Your task to perform on an android device: What's the weather? Image 0: 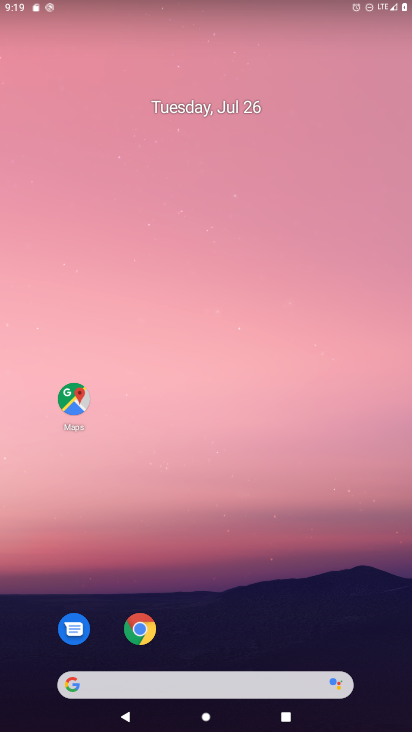
Step 0: drag from (192, 660) to (190, 18)
Your task to perform on an android device: What's the weather? Image 1: 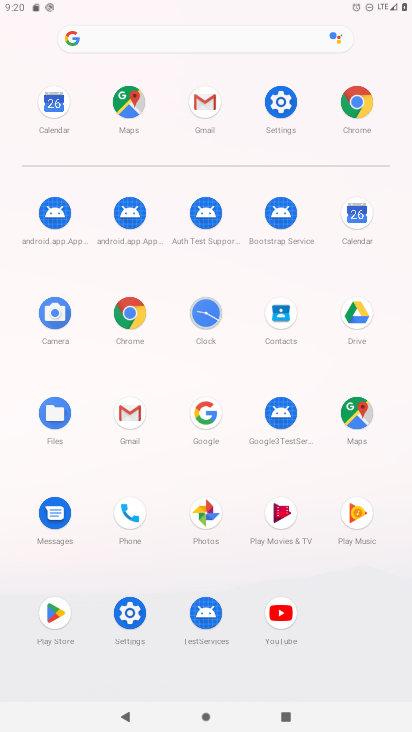
Step 1: click (209, 432)
Your task to perform on an android device: What's the weather? Image 2: 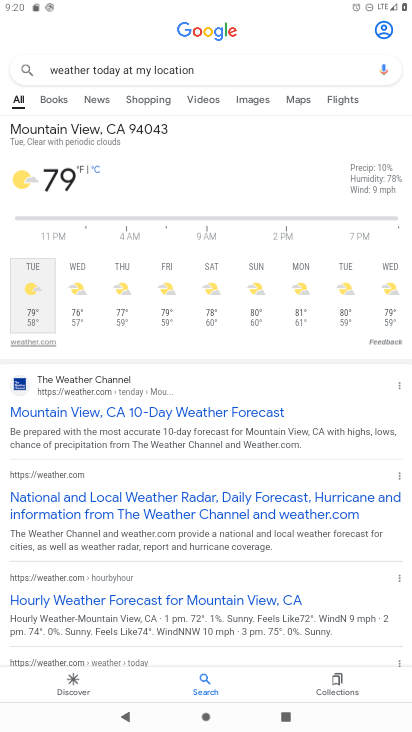
Step 2: click (213, 71)
Your task to perform on an android device: What's the weather? Image 3: 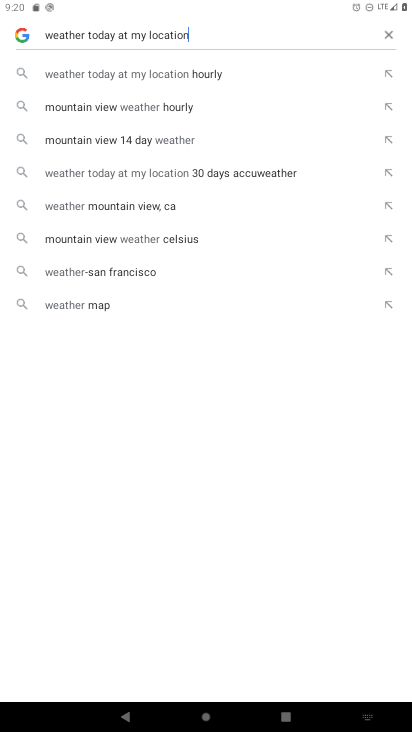
Step 3: task complete